Your task to perform on an android device: Open Yahoo.com Image 0: 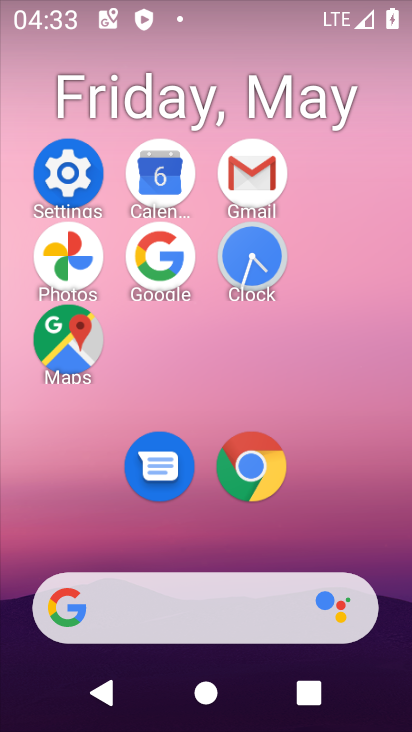
Step 0: click (249, 471)
Your task to perform on an android device: Open Yahoo.com Image 1: 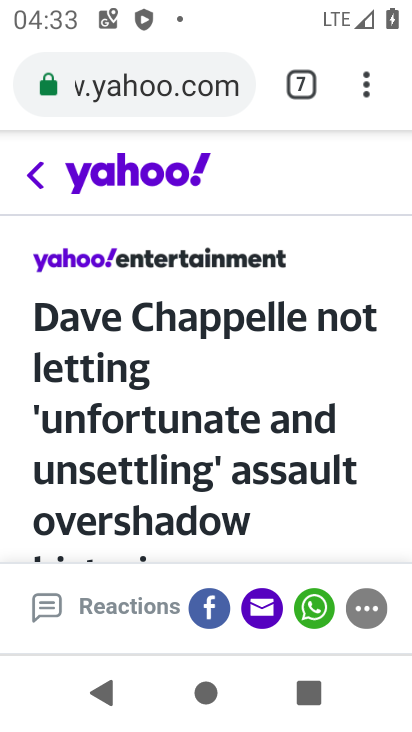
Step 1: task complete